Your task to perform on an android device: change the clock display to digital Image 0: 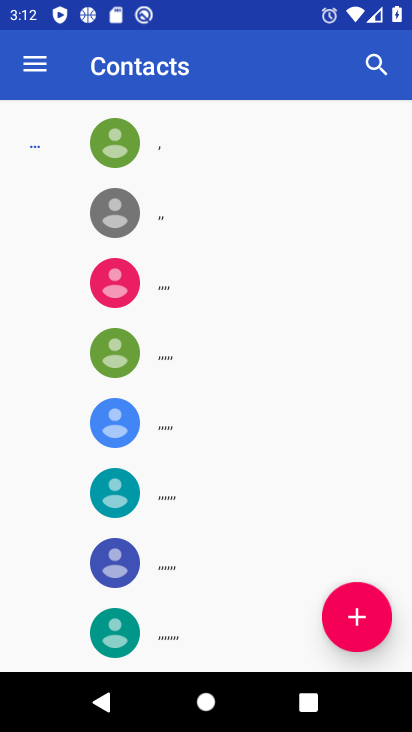
Step 0: press home button
Your task to perform on an android device: change the clock display to digital Image 1: 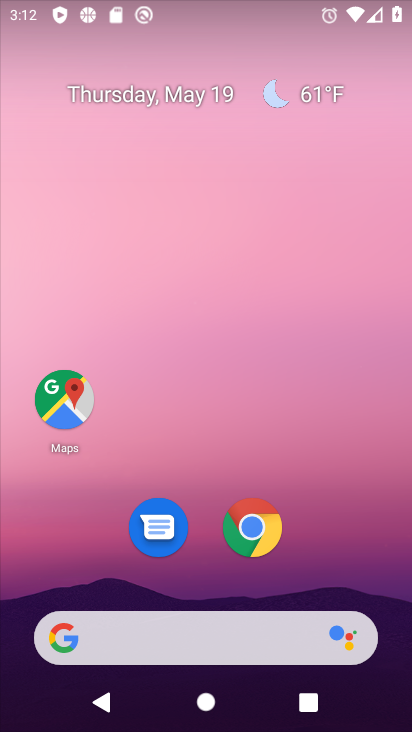
Step 1: drag from (209, 492) to (273, 74)
Your task to perform on an android device: change the clock display to digital Image 2: 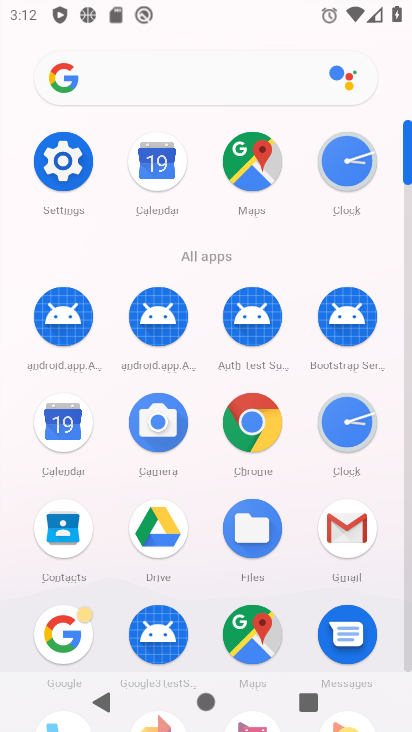
Step 2: click (359, 170)
Your task to perform on an android device: change the clock display to digital Image 3: 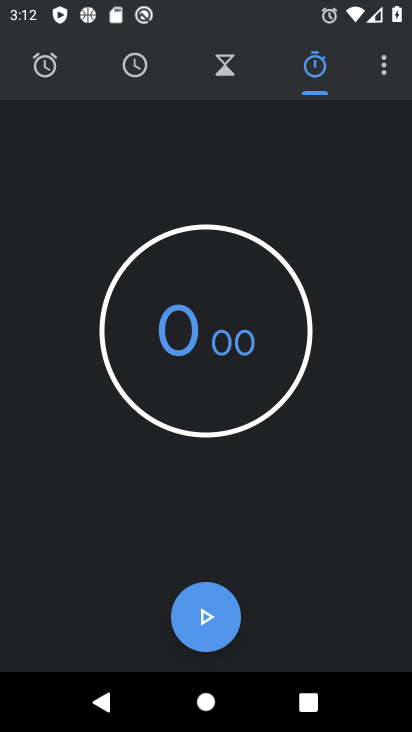
Step 3: click (388, 66)
Your task to perform on an android device: change the clock display to digital Image 4: 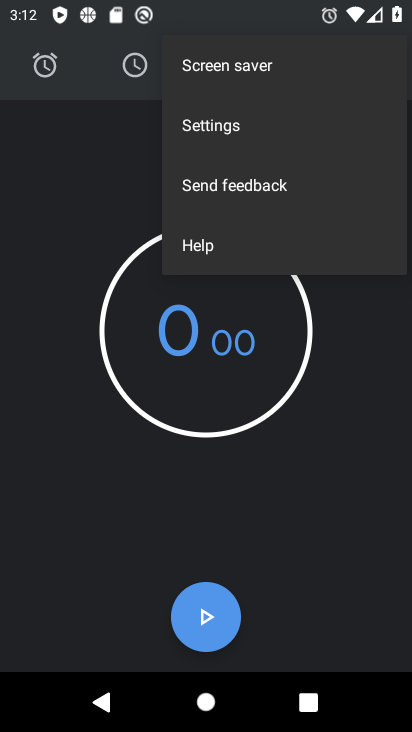
Step 4: click (240, 137)
Your task to perform on an android device: change the clock display to digital Image 5: 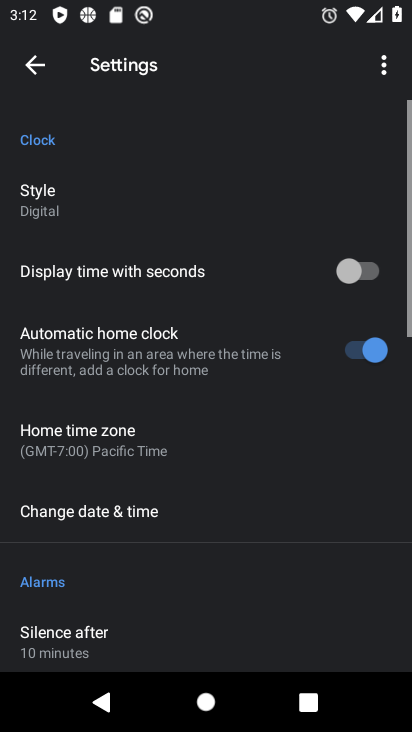
Step 5: click (85, 187)
Your task to perform on an android device: change the clock display to digital Image 6: 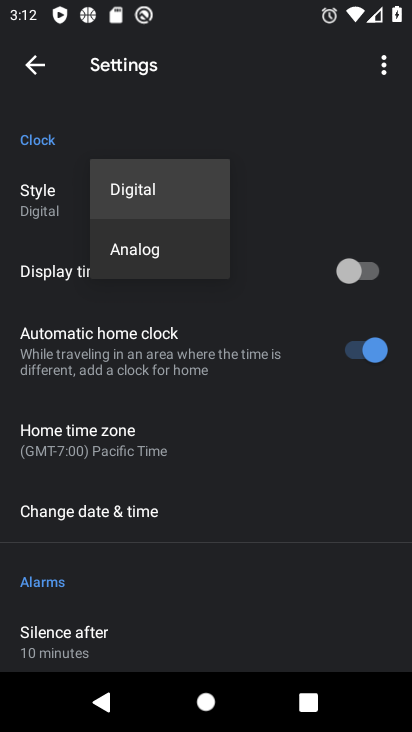
Step 6: click (126, 184)
Your task to perform on an android device: change the clock display to digital Image 7: 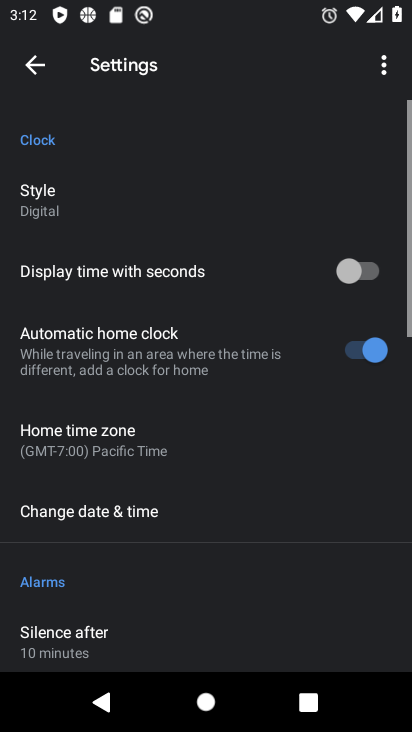
Step 7: task complete